Your task to perform on an android device: install app "eBay: The shopping marketplace" Image 0: 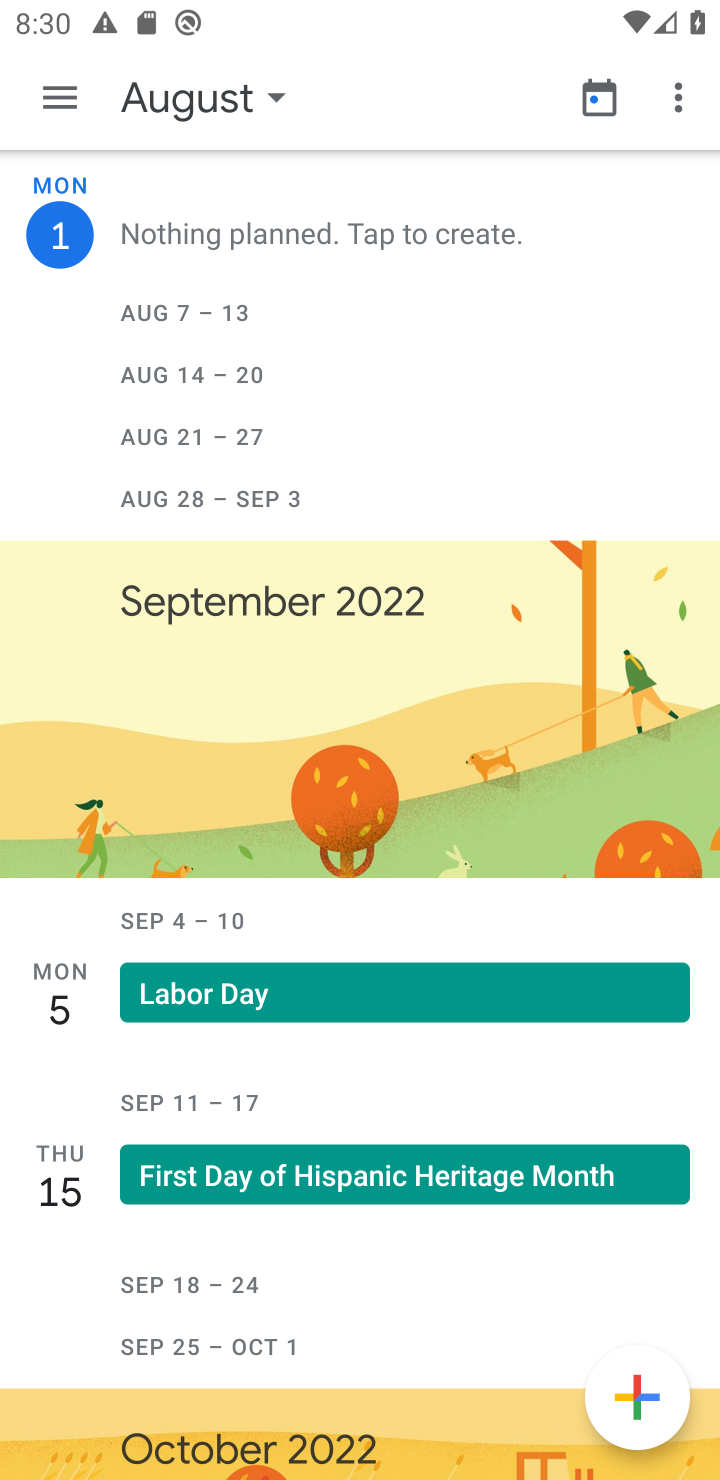
Step 0: press home button
Your task to perform on an android device: install app "eBay: The shopping marketplace" Image 1: 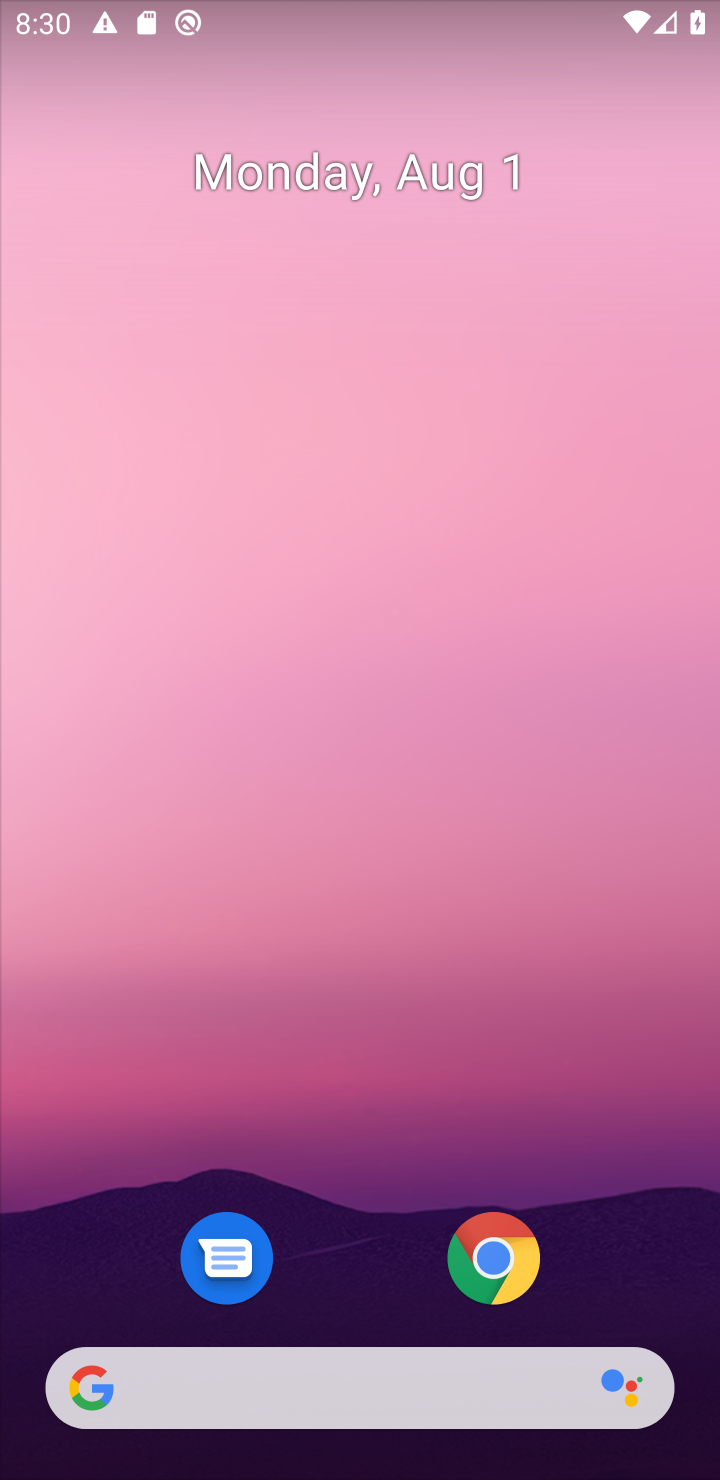
Step 1: drag from (353, 1281) to (223, 71)
Your task to perform on an android device: install app "eBay: The shopping marketplace" Image 2: 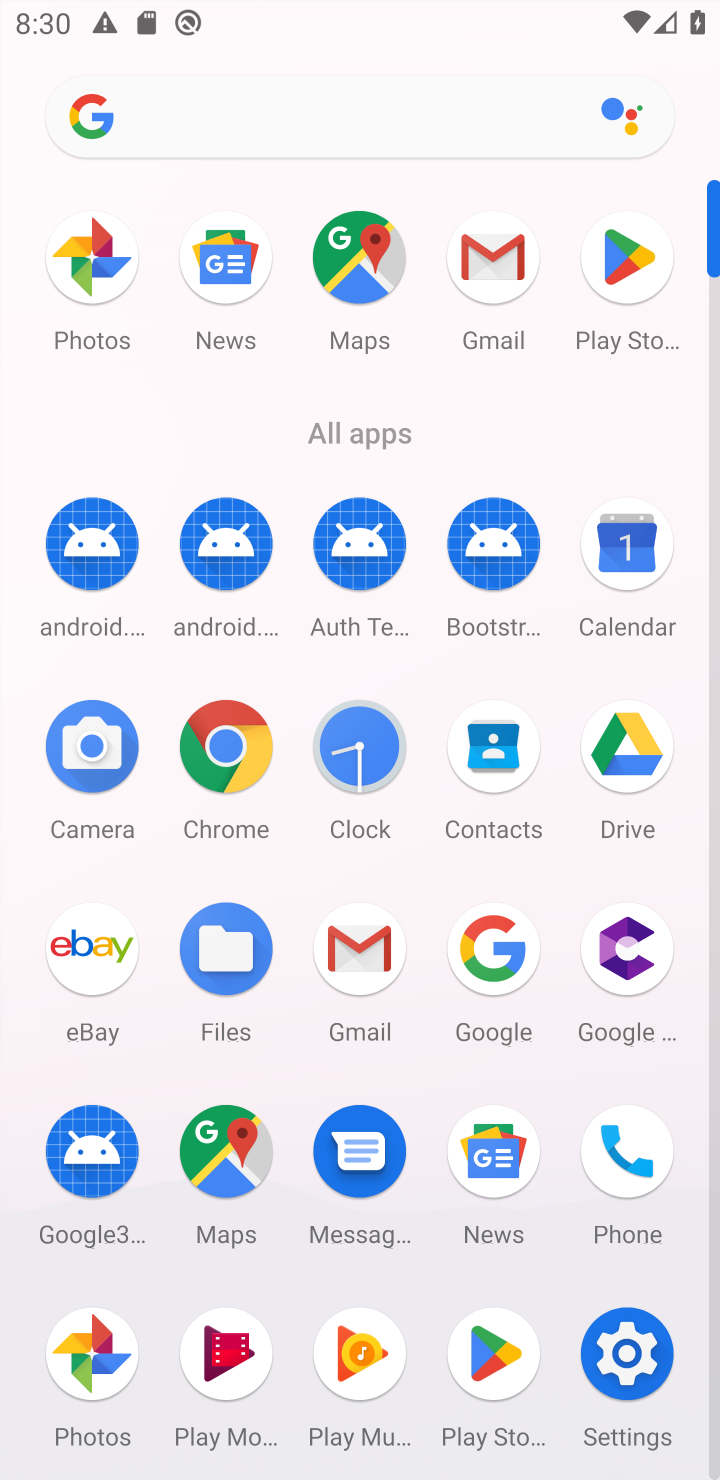
Step 2: click (497, 1349)
Your task to perform on an android device: install app "eBay: The shopping marketplace" Image 3: 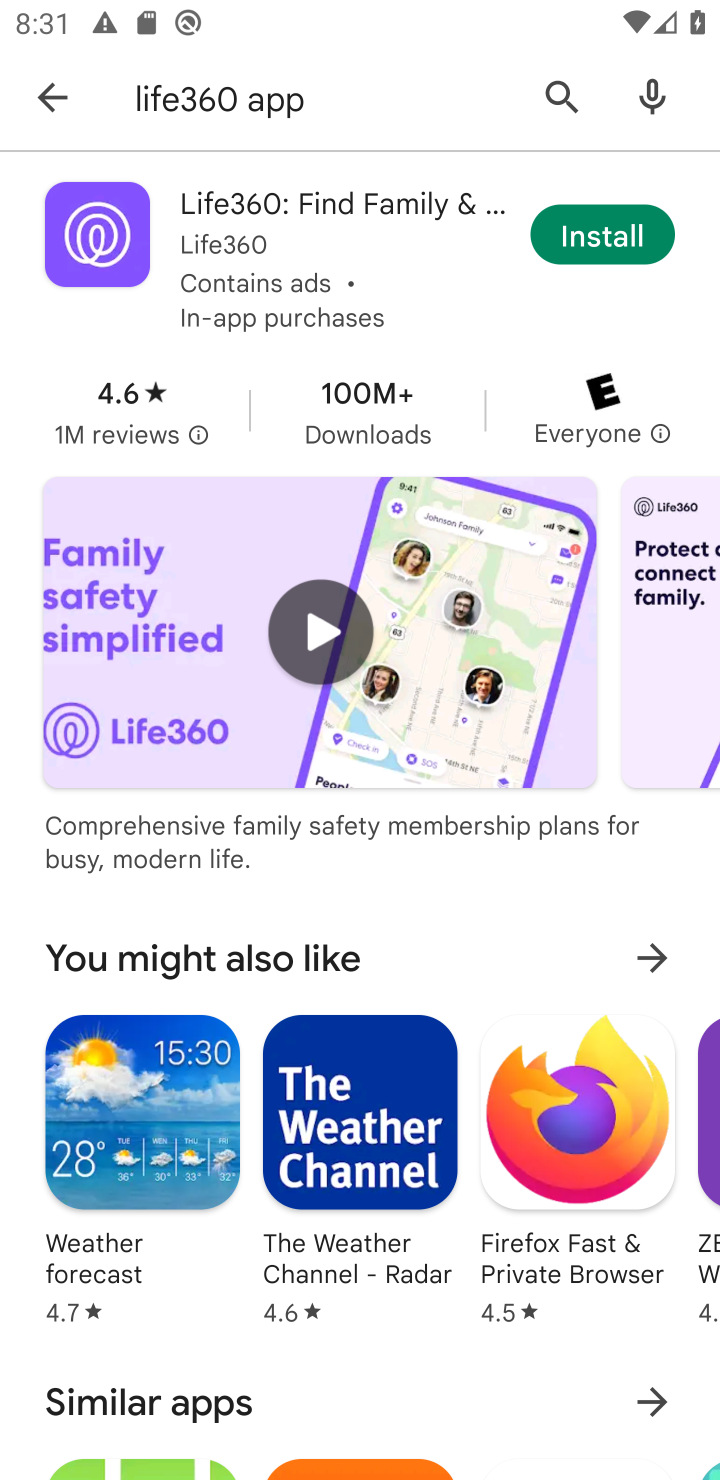
Step 3: click (42, 92)
Your task to perform on an android device: install app "eBay: The shopping marketplace" Image 4: 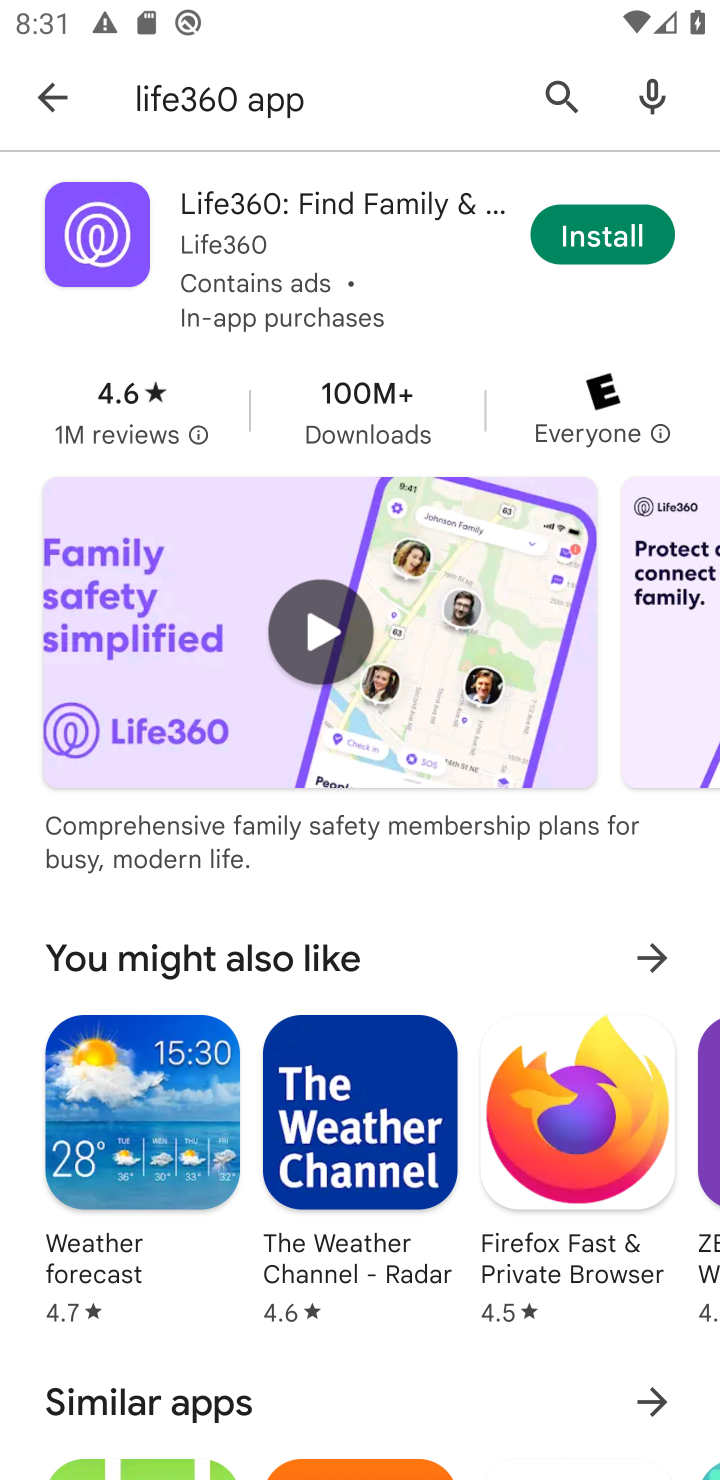
Step 4: click (42, 92)
Your task to perform on an android device: install app "eBay: The shopping marketplace" Image 5: 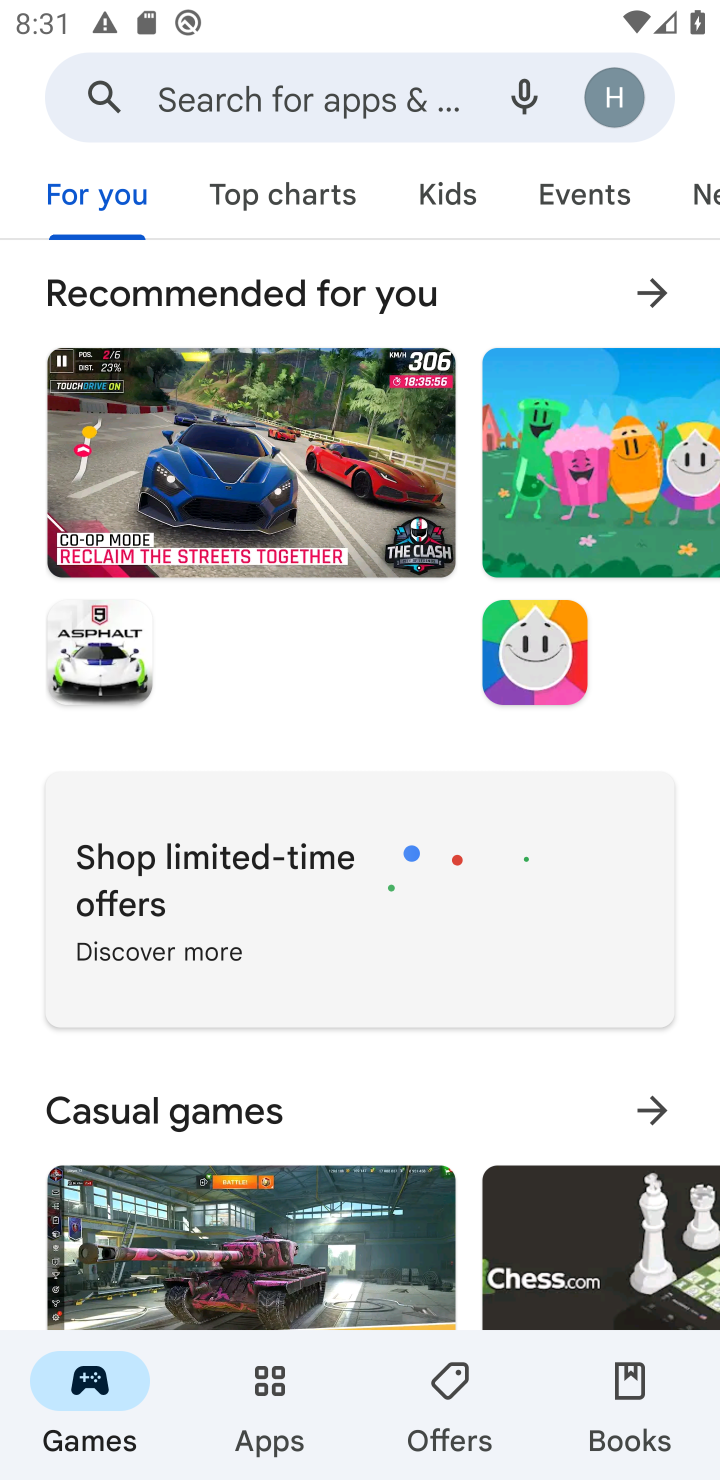
Step 5: click (188, 92)
Your task to perform on an android device: install app "eBay: The shopping marketplace" Image 6: 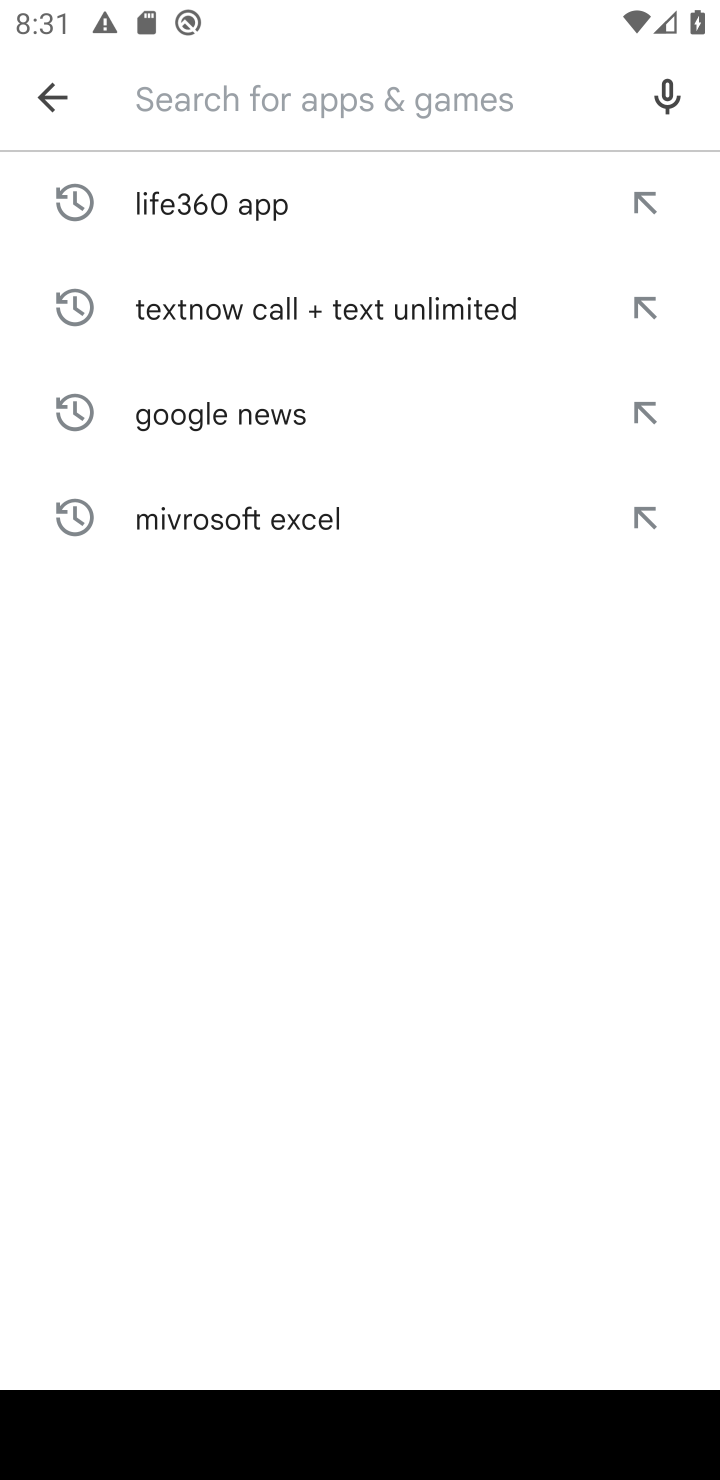
Step 6: type "eBay: The shopping marketplace"
Your task to perform on an android device: install app "eBay: The shopping marketplace" Image 7: 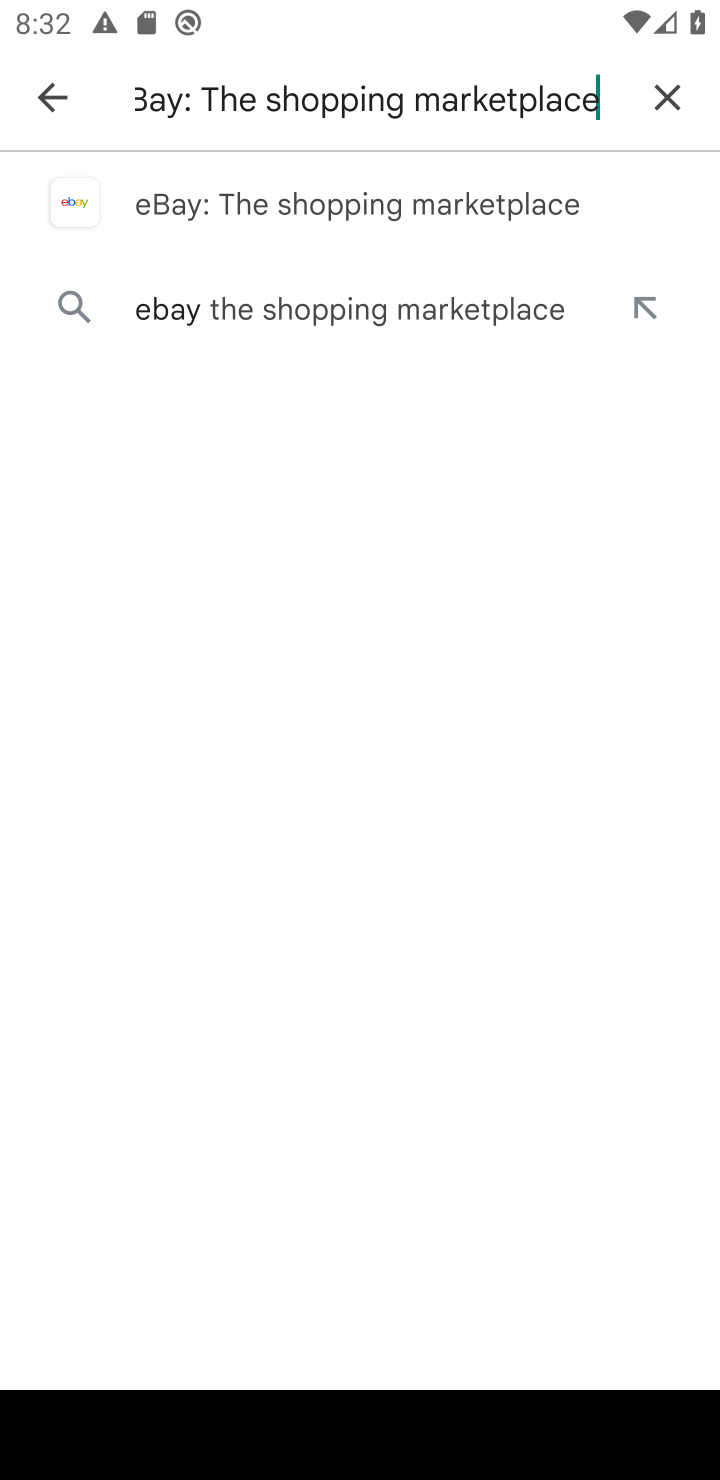
Step 7: click (249, 215)
Your task to perform on an android device: install app "eBay: The shopping marketplace" Image 8: 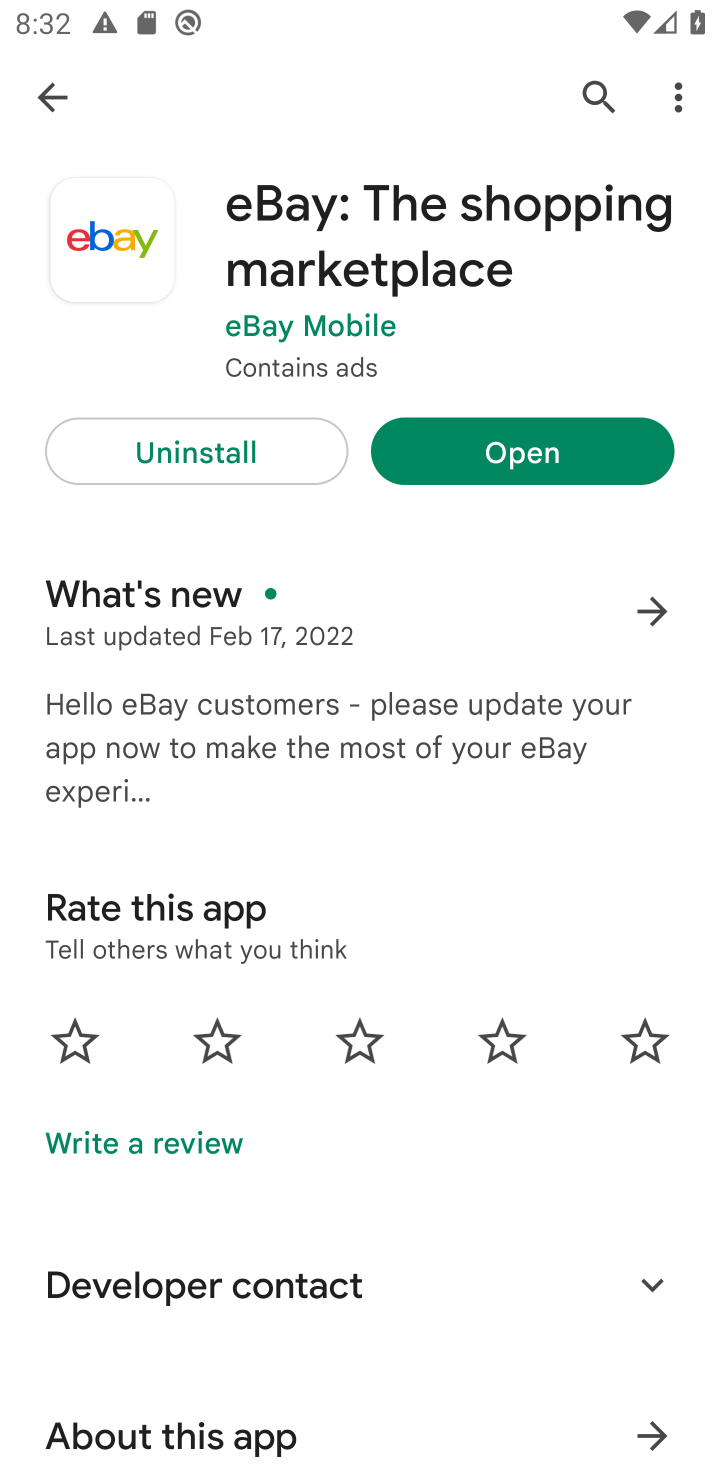
Step 8: task complete